Your task to perform on an android device: star an email in the gmail app Image 0: 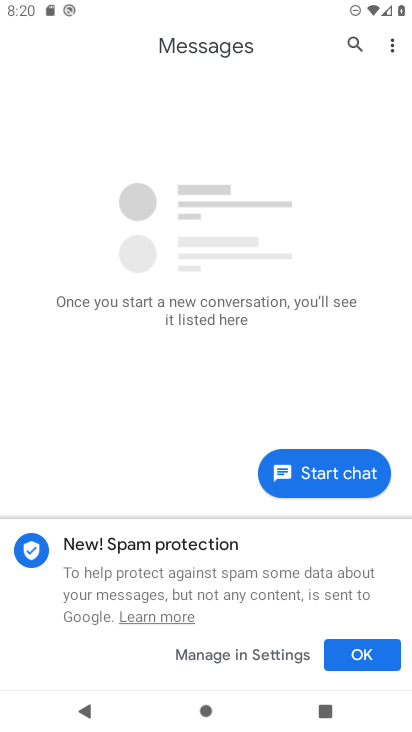
Step 0: press home button
Your task to perform on an android device: star an email in the gmail app Image 1: 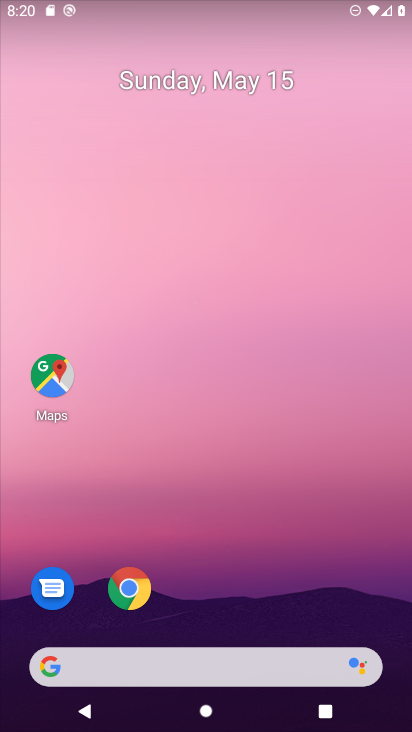
Step 1: drag from (198, 620) to (178, 97)
Your task to perform on an android device: star an email in the gmail app Image 2: 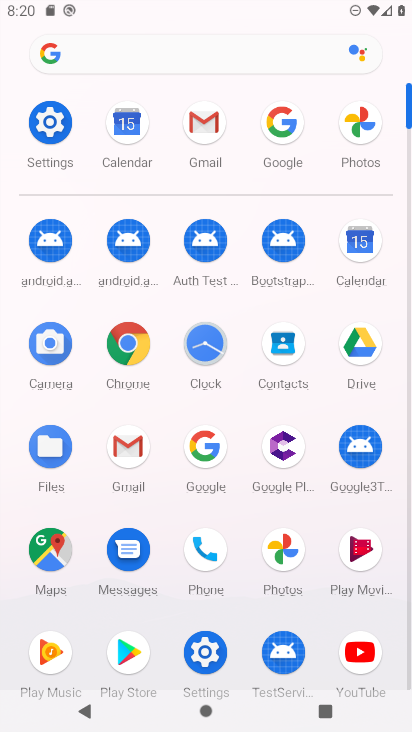
Step 2: click (201, 120)
Your task to perform on an android device: star an email in the gmail app Image 3: 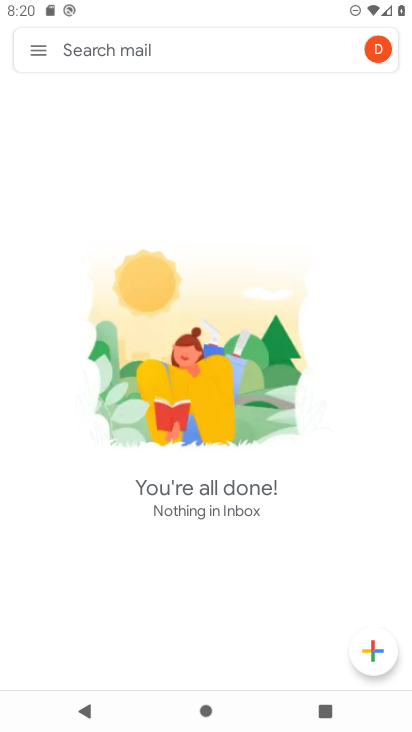
Step 3: click (38, 49)
Your task to perform on an android device: star an email in the gmail app Image 4: 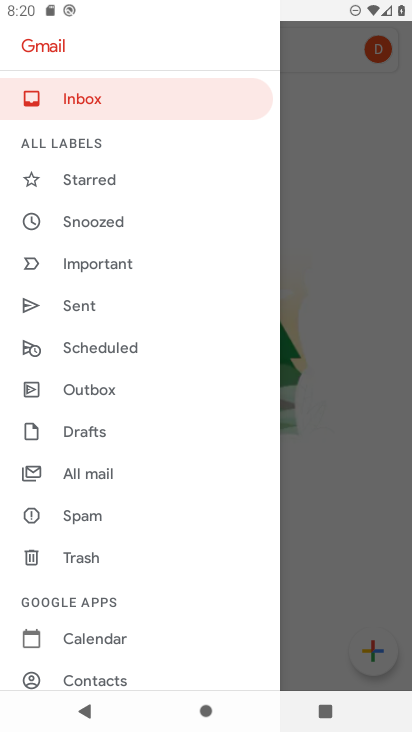
Step 4: click (123, 472)
Your task to perform on an android device: star an email in the gmail app Image 5: 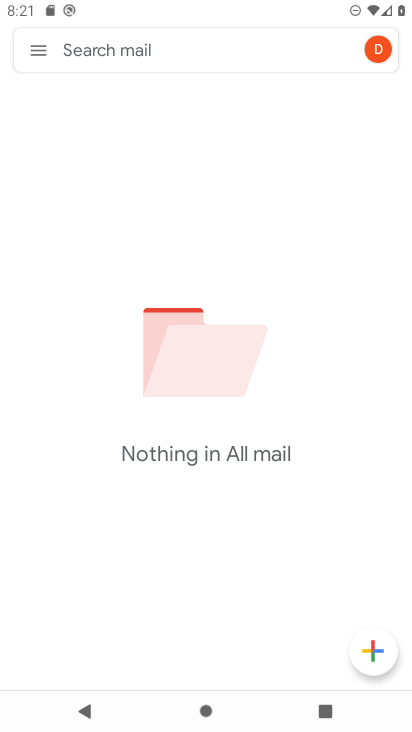
Step 5: task complete